Your task to perform on an android device: change notifications settings Image 0: 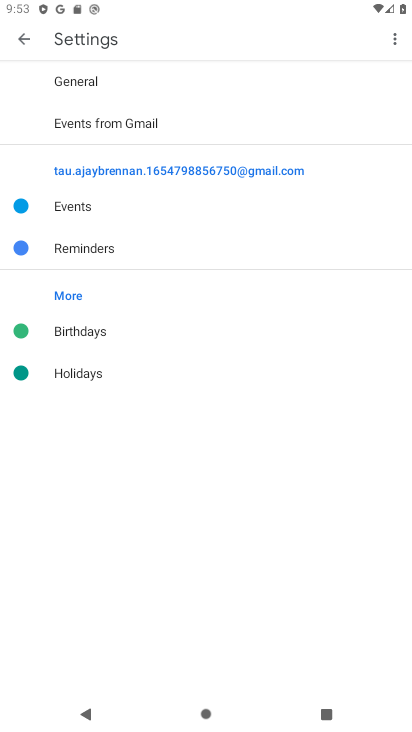
Step 0: press home button
Your task to perform on an android device: change notifications settings Image 1: 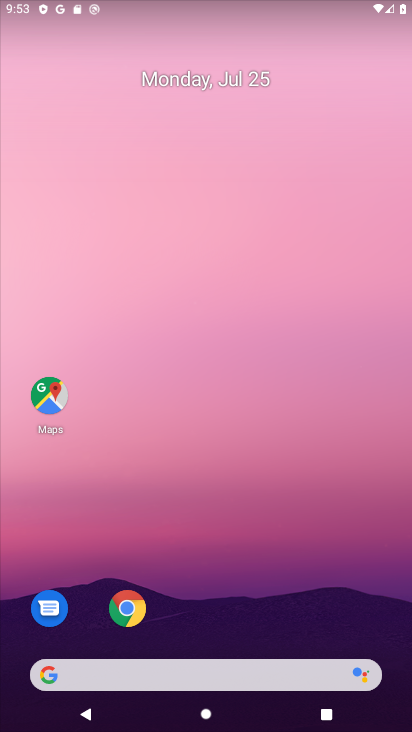
Step 1: drag from (229, 656) to (205, 61)
Your task to perform on an android device: change notifications settings Image 2: 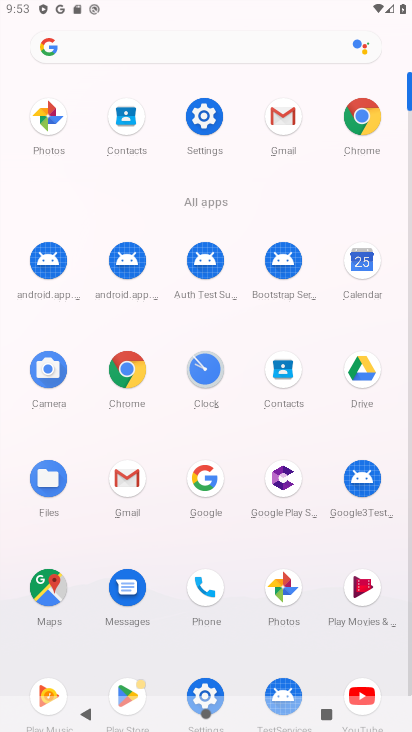
Step 2: click (205, 152)
Your task to perform on an android device: change notifications settings Image 3: 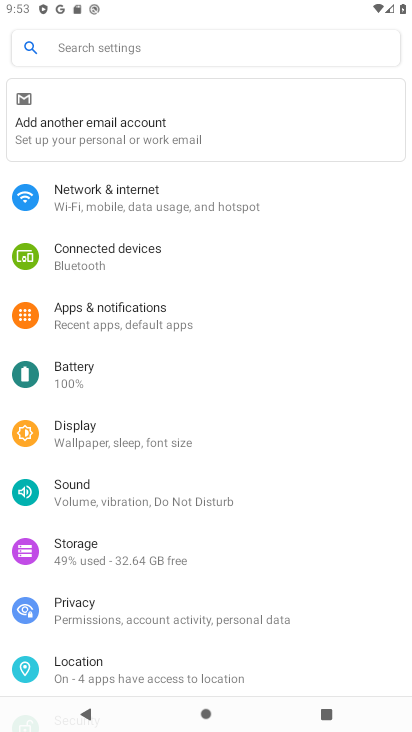
Step 3: click (141, 325)
Your task to perform on an android device: change notifications settings Image 4: 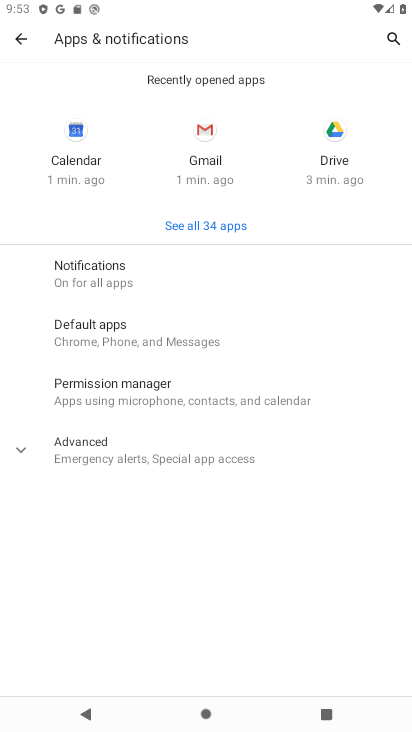
Step 4: click (236, 282)
Your task to perform on an android device: change notifications settings Image 5: 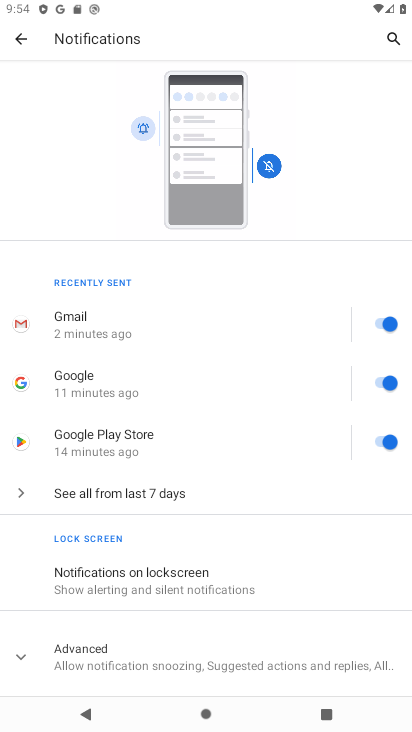
Step 5: click (380, 332)
Your task to perform on an android device: change notifications settings Image 6: 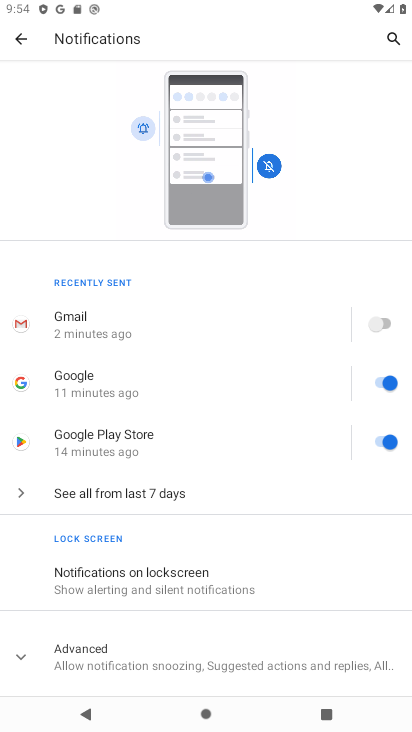
Step 6: task complete